Your task to perform on an android device: make emails show in primary in the gmail app Image 0: 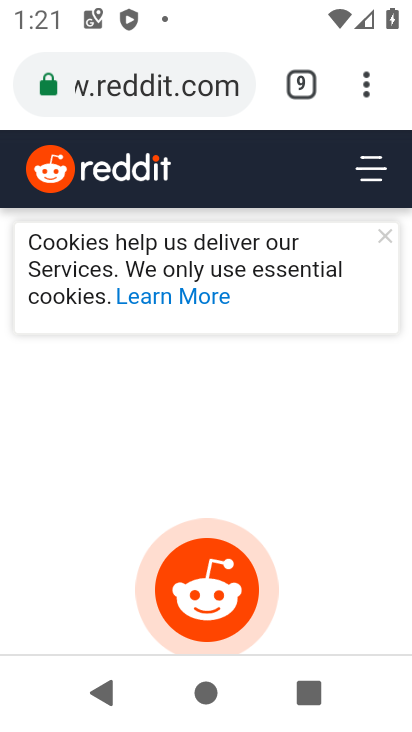
Step 0: press home button
Your task to perform on an android device: make emails show in primary in the gmail app Image 1: 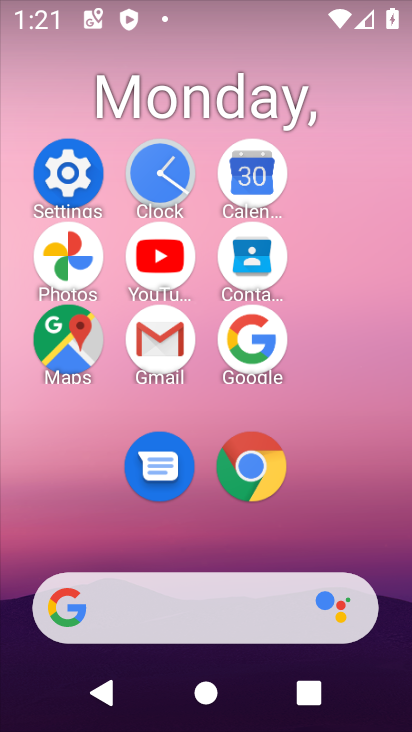
Step 1: click (152, 330)
Your task to perform on an android device: make emails show in primary in the gmail app Image 2: 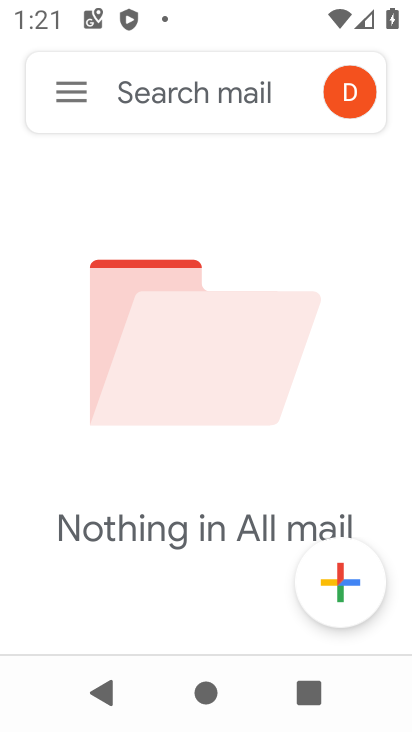
Step 2: click (37, 81)
Your task to perform on an android device: make emails show in primary in the gmail app Image 3: 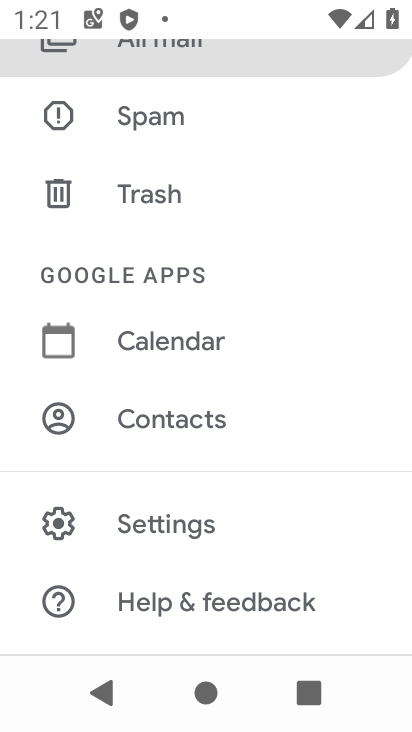
Step 3: click (229, 516)
Your task to perform on an android device: make emails show in primary in the gmail app Image 4: 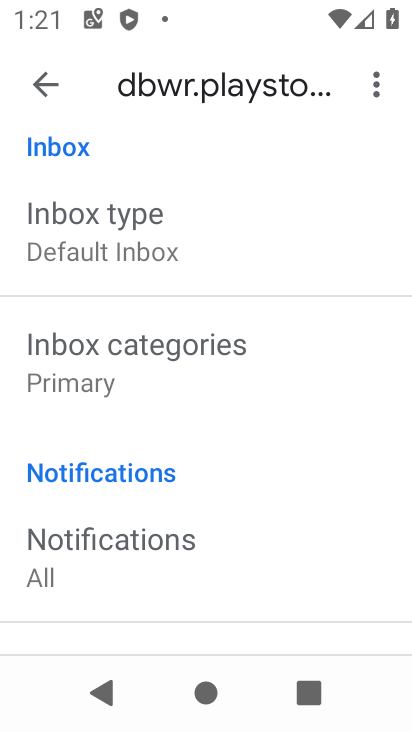
Step 4: task complete